Your task to perform on an android device: Turn on the flashlight Image 0: 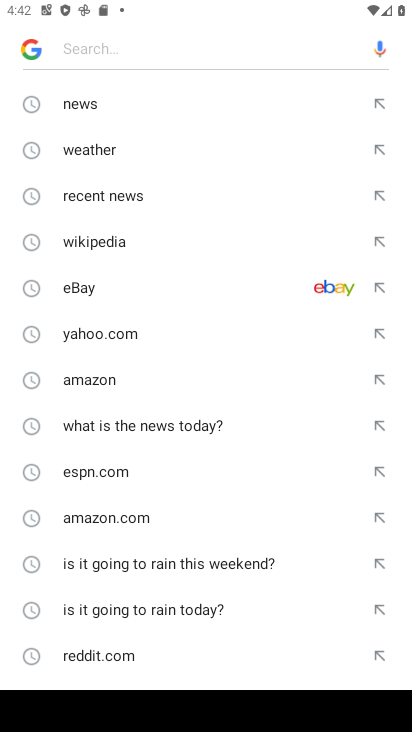
Step 0: press home button
Your task to perform on an android device: Turn on the flashlight Image 1: 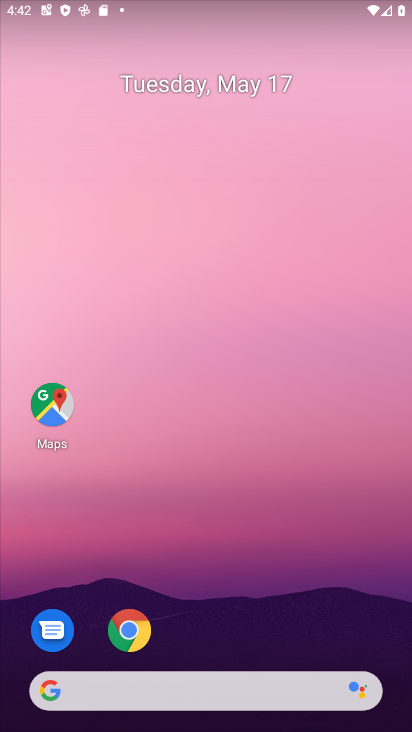
Step 1: drag from (238, 696) to (240, 135)
Your task to perform on an android device: Turn on the flashlight Image 2: 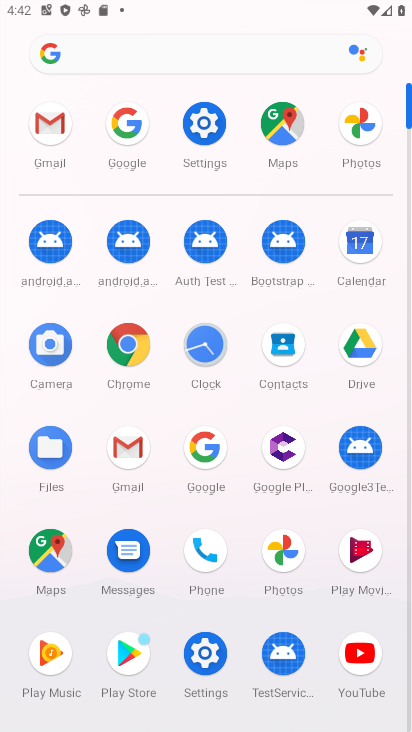
Step 2: click (200, 122)
Your task to perform on an android device: Turn on the flashlight Image 3: 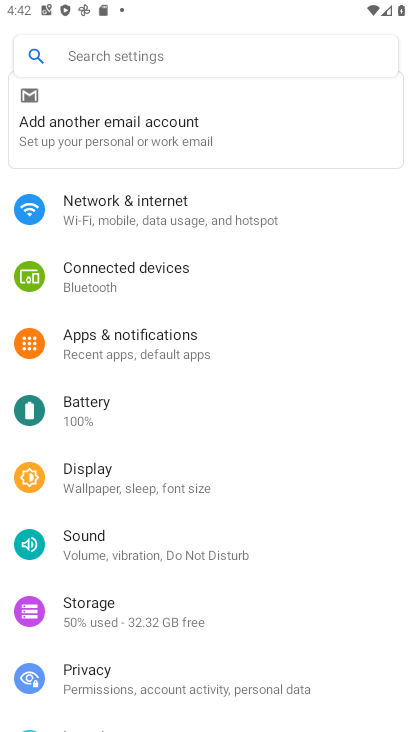
Step 3: task complete